Your task to perform on an android device: Is it going to rain this weekend? Image 0: 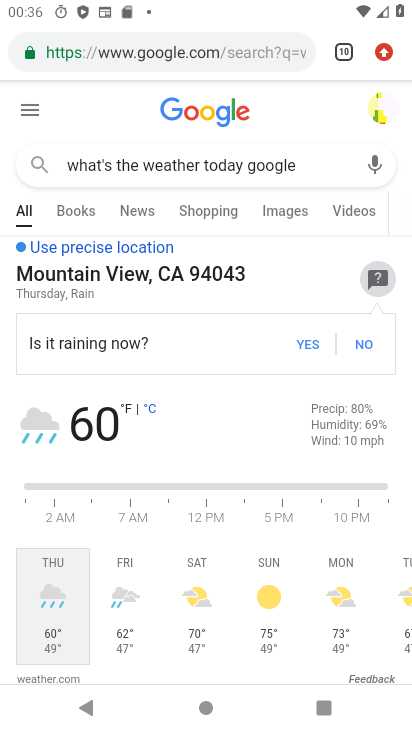
Step 0: click (374, 50)
Your task to perform on an android device: Is it going to rain this weekend? Image 1: 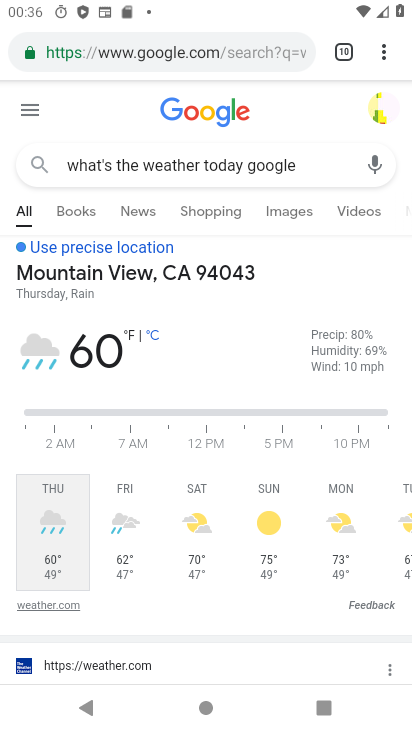
Step 1: click (377, 53)
Your task to perform on an android device: Is it going to rain this weekend? Image 2: 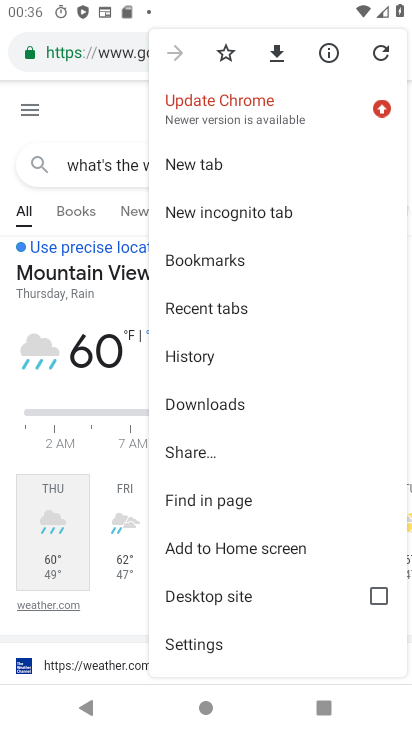
Step 2: click (241, 166)
Your task to perform on an android device: Is it going to rain this weekend? Image 3: 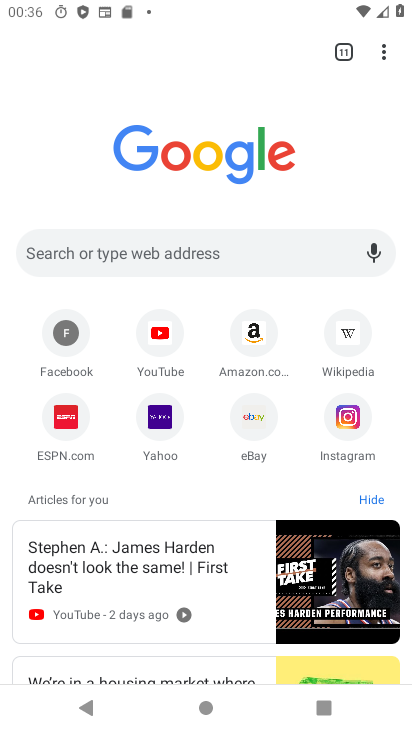
Step 3: click (189, 248)
Your task to perform on an android device: Is it going to rain this weekend? Image 4: 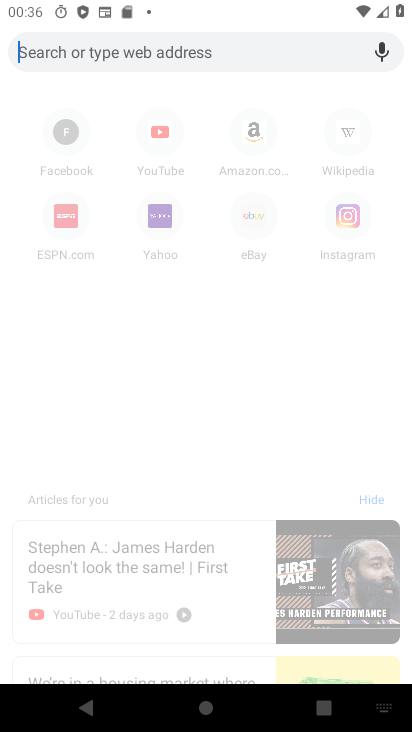
Step 4: type "Is it going to rain this weekend?"
Your task to perform on an android device: Is it going to rain this weekend? Image 5: 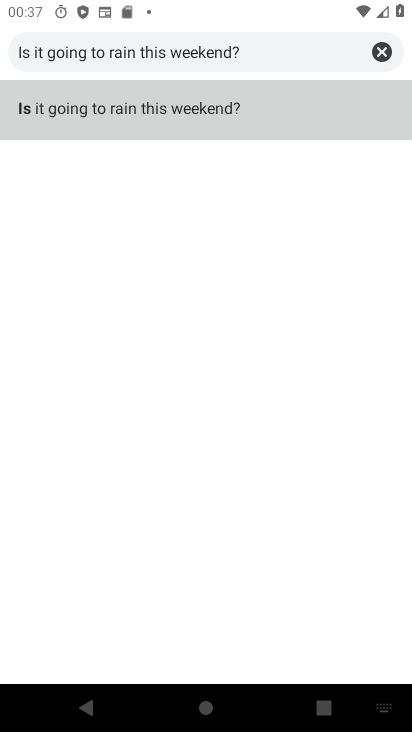
Step 5: click (221, 110)
Your task to perform on an android device: Is it going to rain this weekend? Image 6: 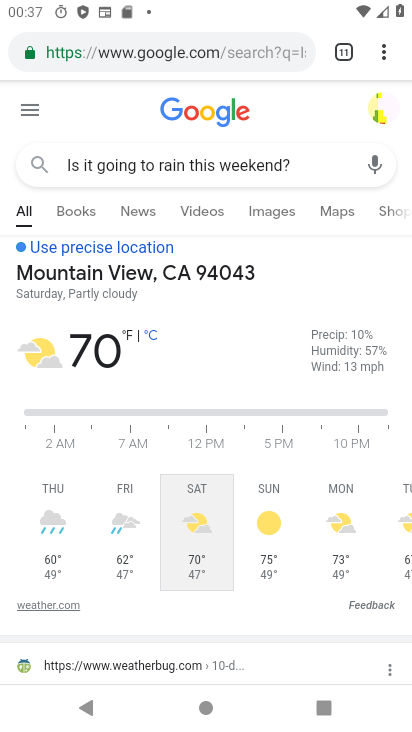
Step 6: task complete